Your task to perform on an android device: Open the Play Movies app and select the watchlist tab. Image 0: 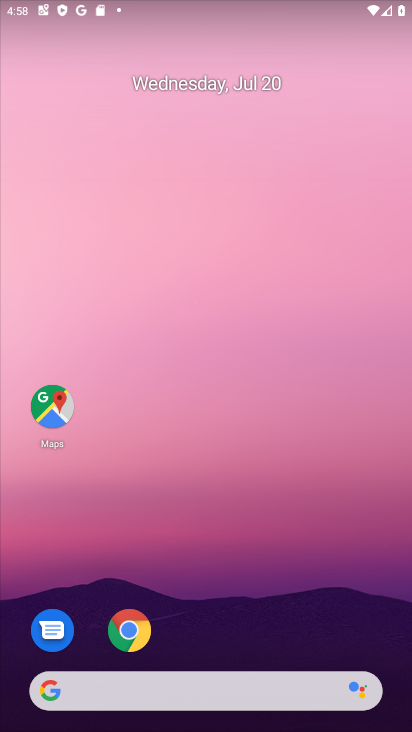
Step 0: drag from (151, 690) to (204, 202)
Your task to perform on an android device: Open the Play Movies app and select the watchlist tab. Image 1: 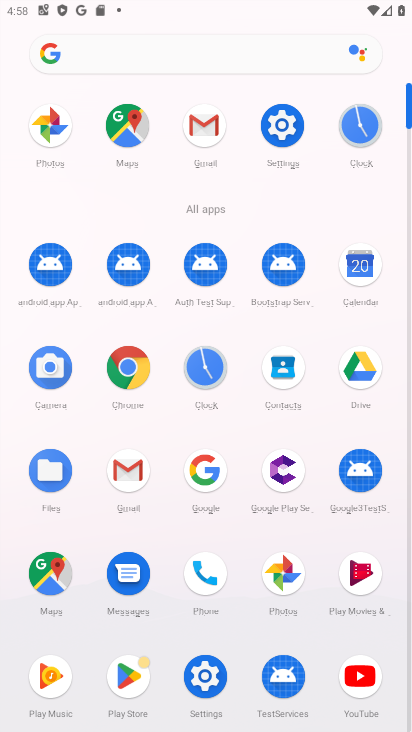
Step 1: click (362, 571)
Your task to perform on an android device: Open the Play Movies app and select the watchlist tab. Image 2: 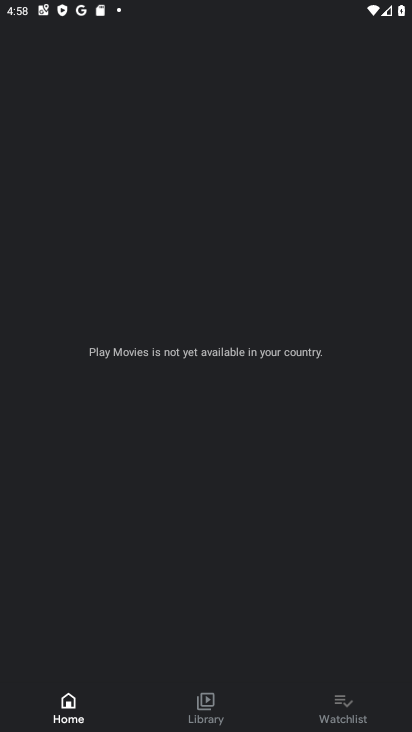
Step 2: click (337, 697)
Your task to perform on an android device: Open the Play Movies app and select the watchlist tab. Image 3: 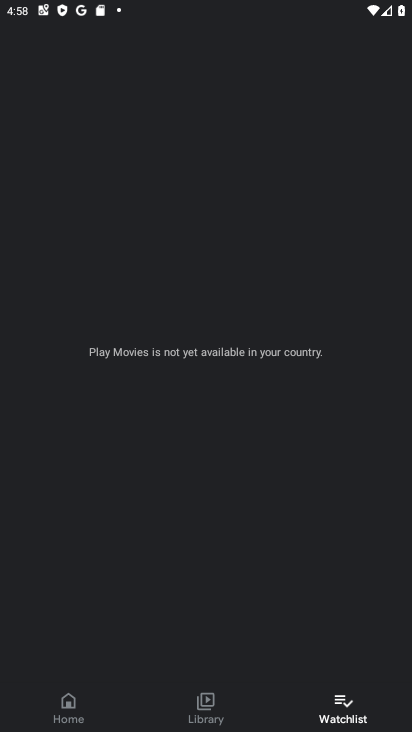
Step 3: task complete